Your task to perform on an android device: Go to Google maps Image 0: 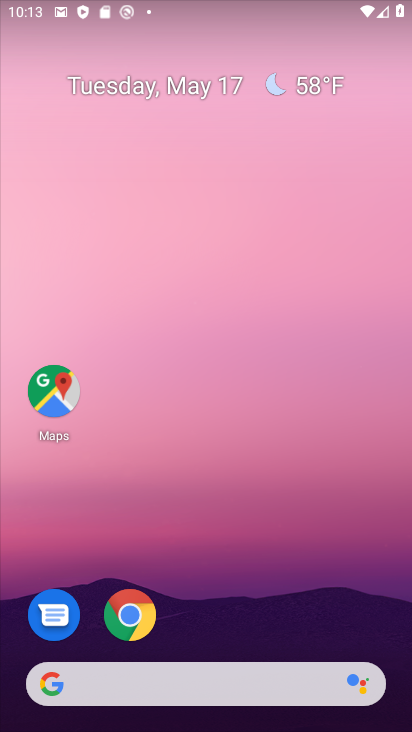
Step 0: click (71, 400)
Your task to perform on an android device: Go to Google maps Image 1: 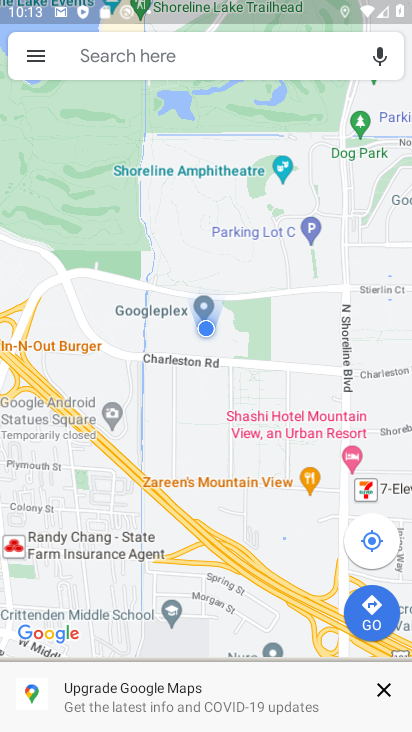
Step 1: task complete